Your task to perform on an android device: Open display settings Image 0: 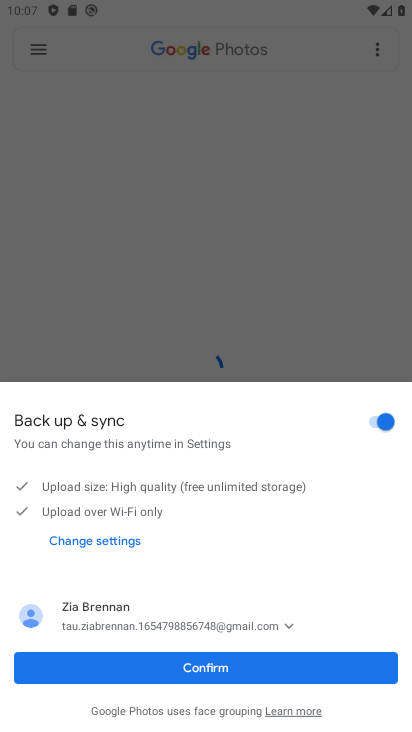
Step 0: press home button
Your task to perform on an android device: Open display settings Image 1: 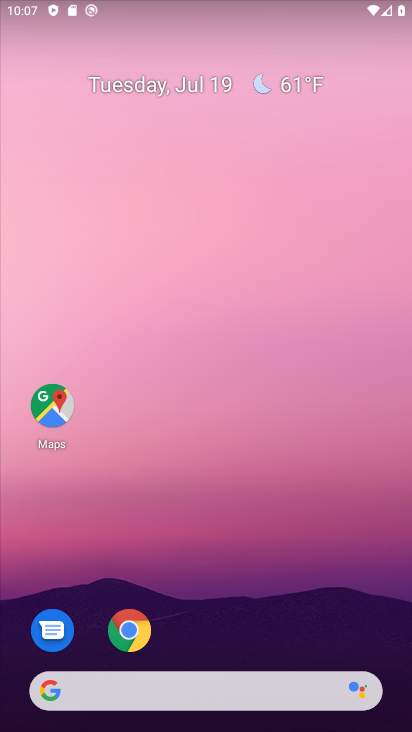
Step 1: drag from (362, 633) to (305, 205)
Your task to perform on an android device: Open display settings Image 2: 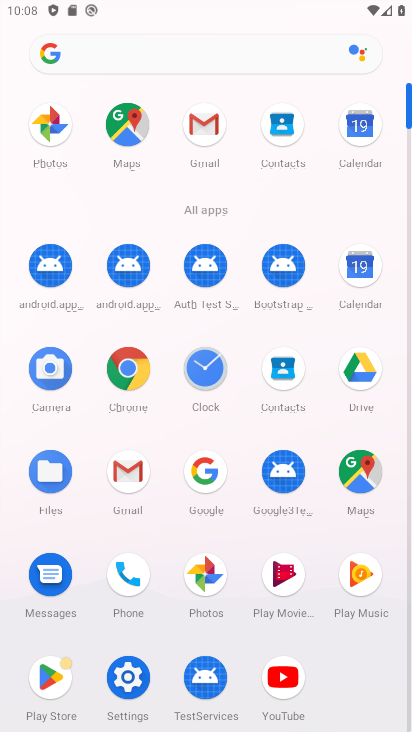
Step 2: click (127, 674)
Your task to perform on an android device: Open display settings Image 3: 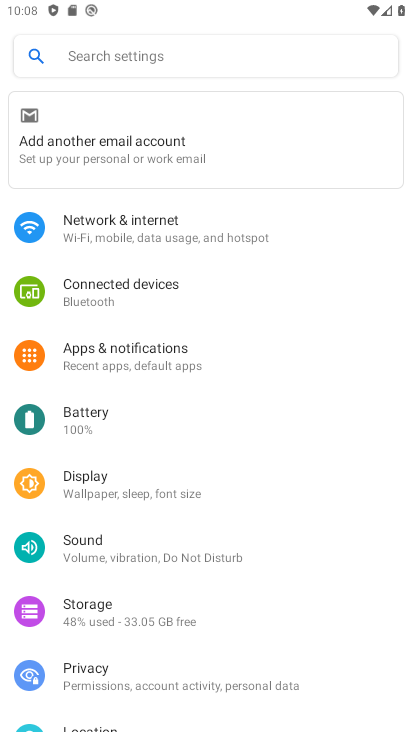
Step 3: click (80, 482)
Your task to perform on an android device: Open display settings Image 4: 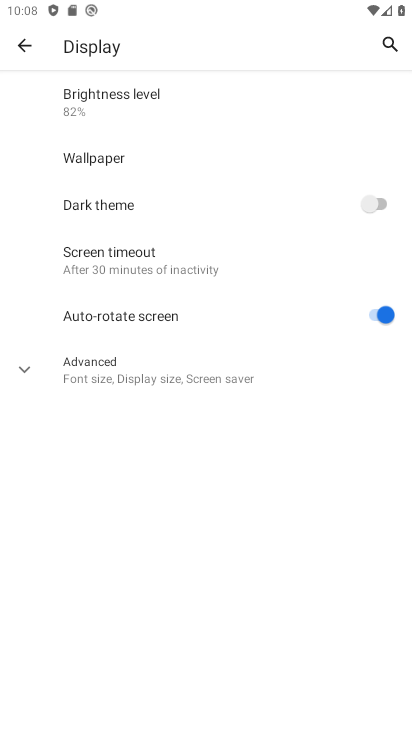
Step 4: click (28, 367)
Your task to perform on an android device: Open display settings Image 5: 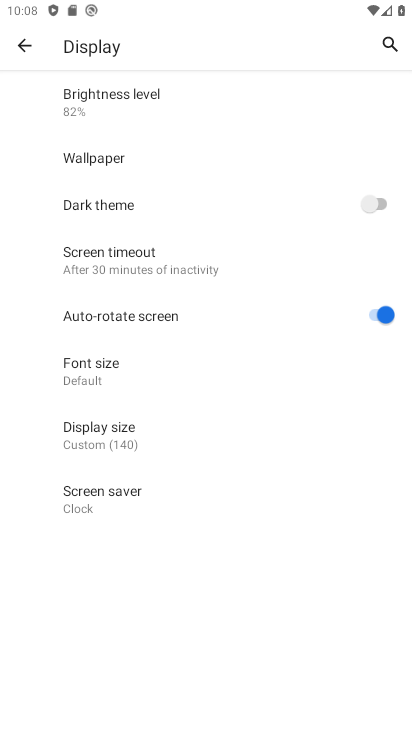
Step 5: task complete